Your task to perform on an android device: read, delete, or share a saved page in the chrome app Image 0: 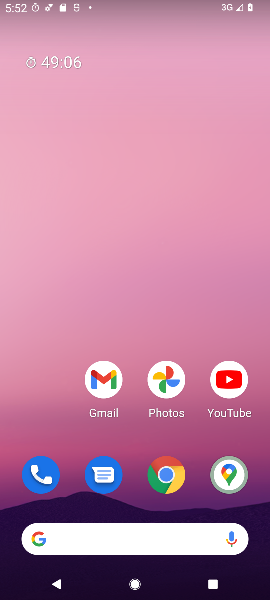
Step 0: press home button
Your task to perform on an android device: read, delete, or share a saved page in the chrome app Image 1: 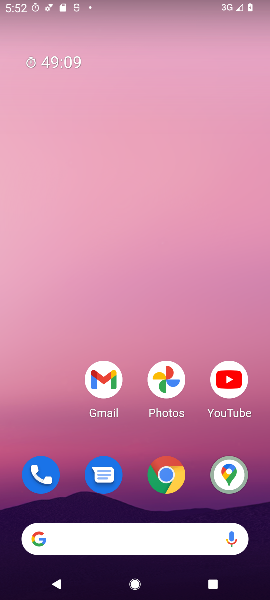
Step 1: drag from (58, 437) to (57, 195)
Your task to perform on an android device: read, delete, or share a saved page in the chrome app Image 2: 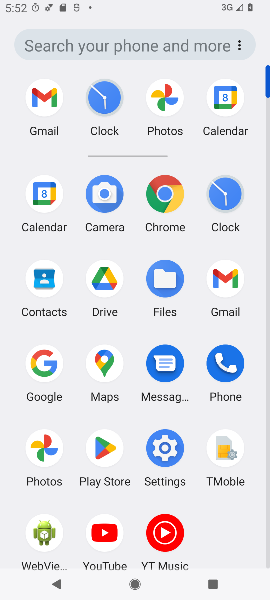
Step 2: click (175, 187)
Your task to perform on an android device: read, delete, or share a saved page in the chrome app Image 3: 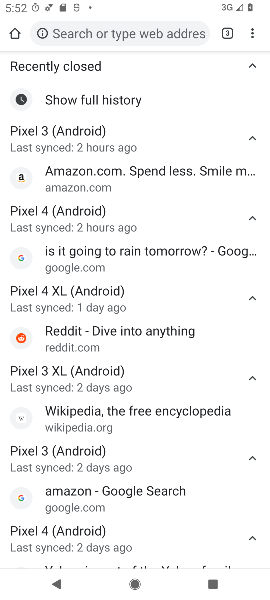
Step 3: click (250, 39)
Your task to perform on an android device: read, delete, or share a saved page in the chrome app Image 4: 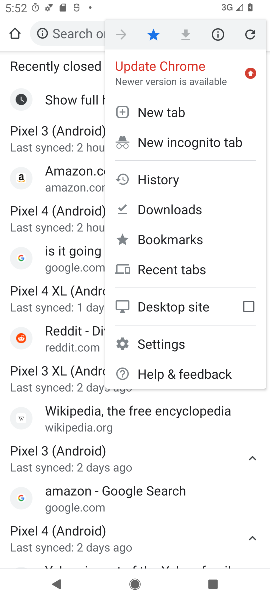
Step 4: click (197, 209)
Your task to perform on an android device: read, delete, or share a saved page in the chrome app Image 5: 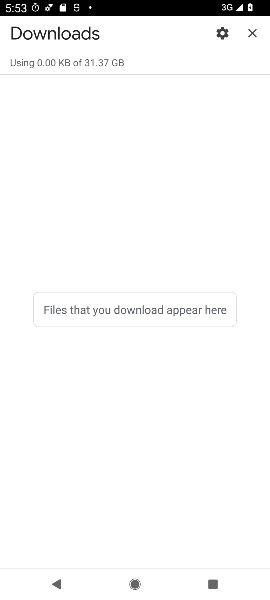
Step 5: task complete